Your task to perform on an android device: Open the web browser Image 0: 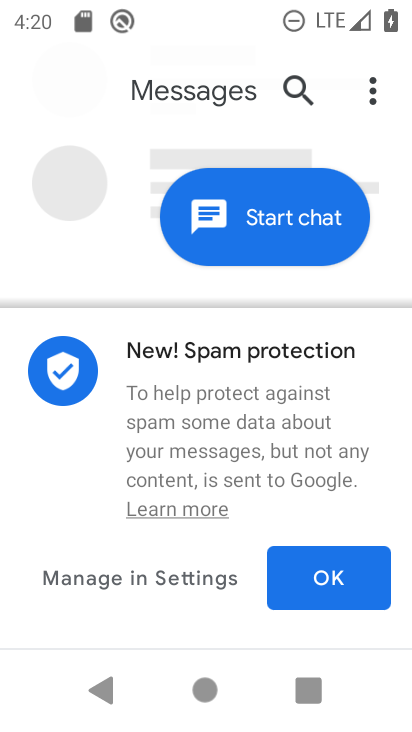
Step 0: press home button
Your task to perform on an android device: Open the web browser Image 1: 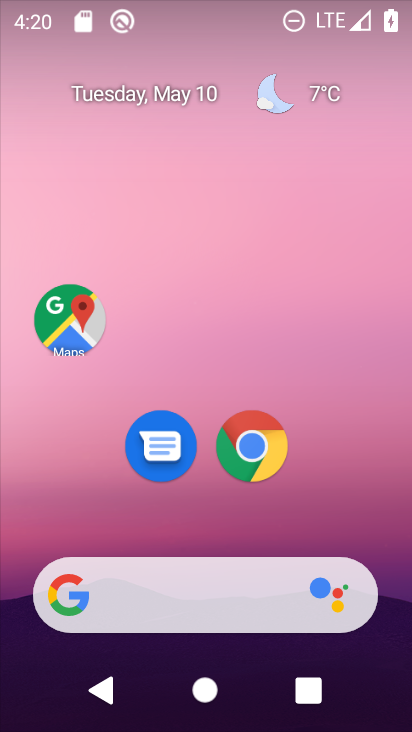
Step 1: click (251, 426)
Your task to perform on an android device: Open the web browser Image 2: 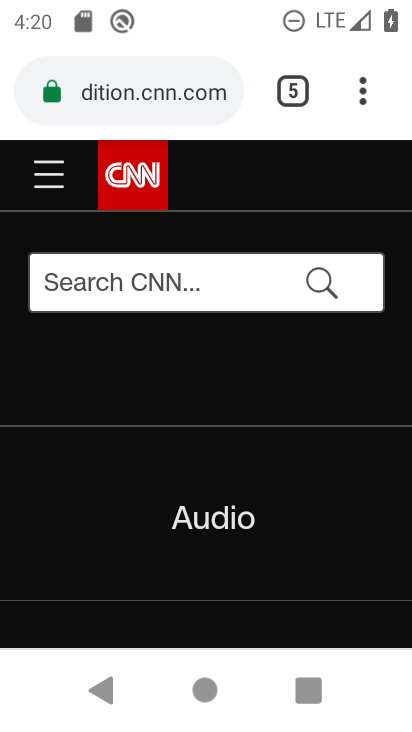
Step 2: task complete